Your task to perform on an android device: turn on airplane mode Image 0: 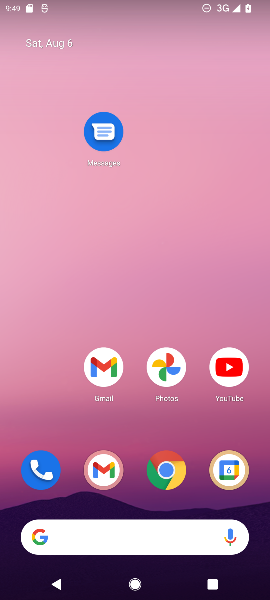
Step 0: drag from (163, 487) to (153, 103)
Your task to perform on an android device: turn on airplane mode Image 1: 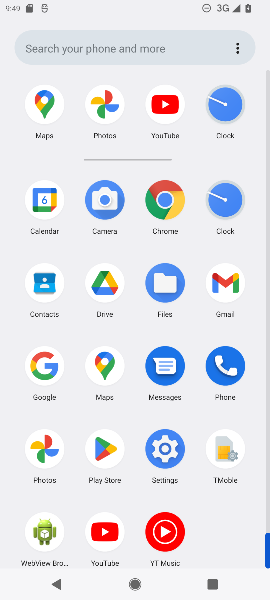
Step 1: click (164, 448)
Your task to perform on an android device: turn on airplane mode Image 2: 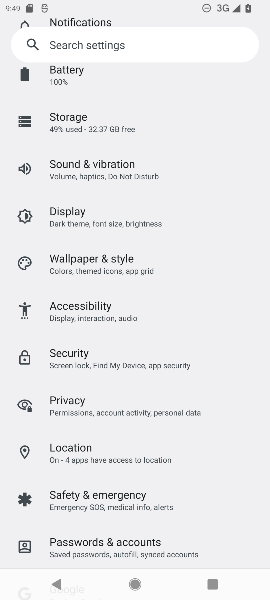
Step 2: drag from (171, 133) to (145, 404)
Your task to perform on an android device: turn on airplane mode Image 3: 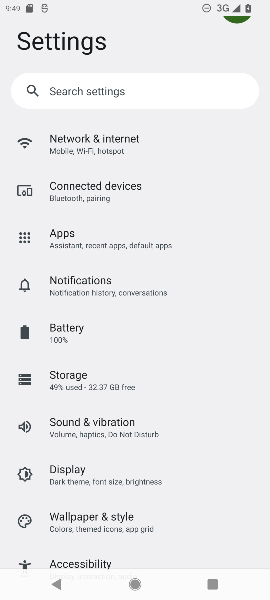
Step 3: click (131, 154)
Your task to perform on an android device: turn on airplane mode Image 4: 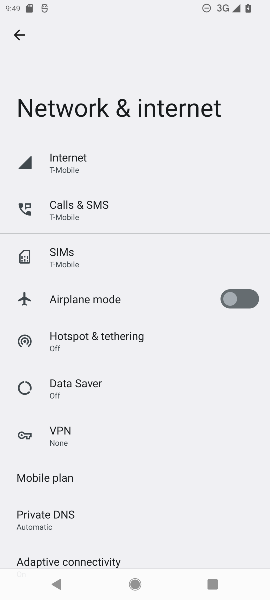
Step 4: click (150, 297)
Your task to perform on an android device: turn on airplane mode Image 5: 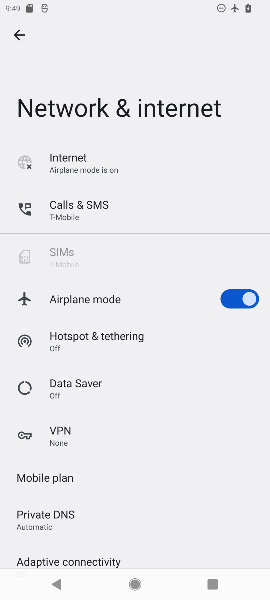
Step 5: task complete